Your task to perform on an android device: Install the Lyft app Image 0: 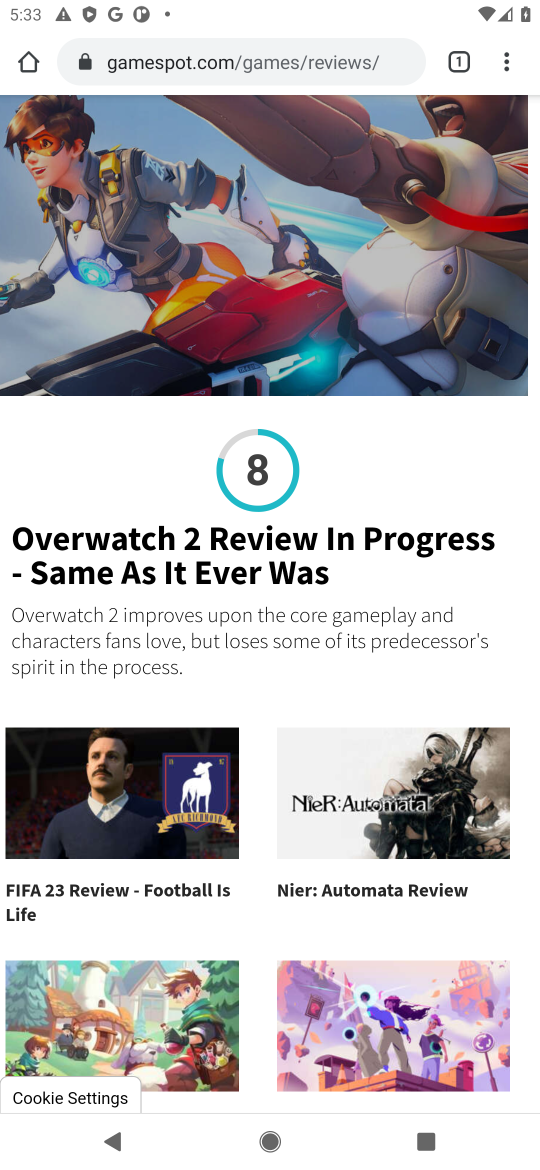
Step 0: press home button
Your task to perform on an android device: Install the Lyft app Image 1: 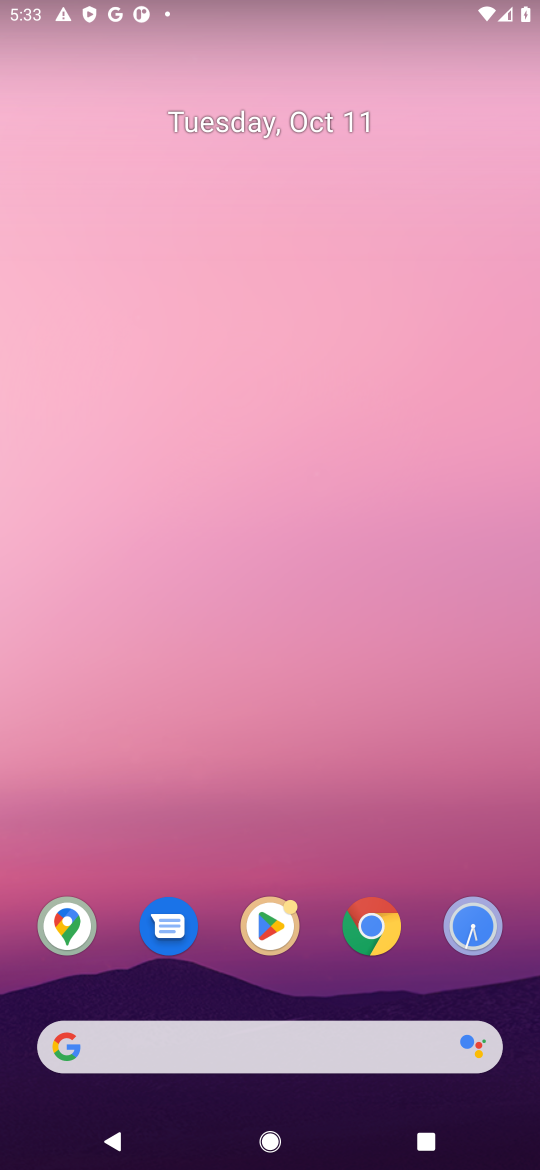
Step 1: click (266, 930)
Your task to perform on an android device: Install the Lyft app Image 2: 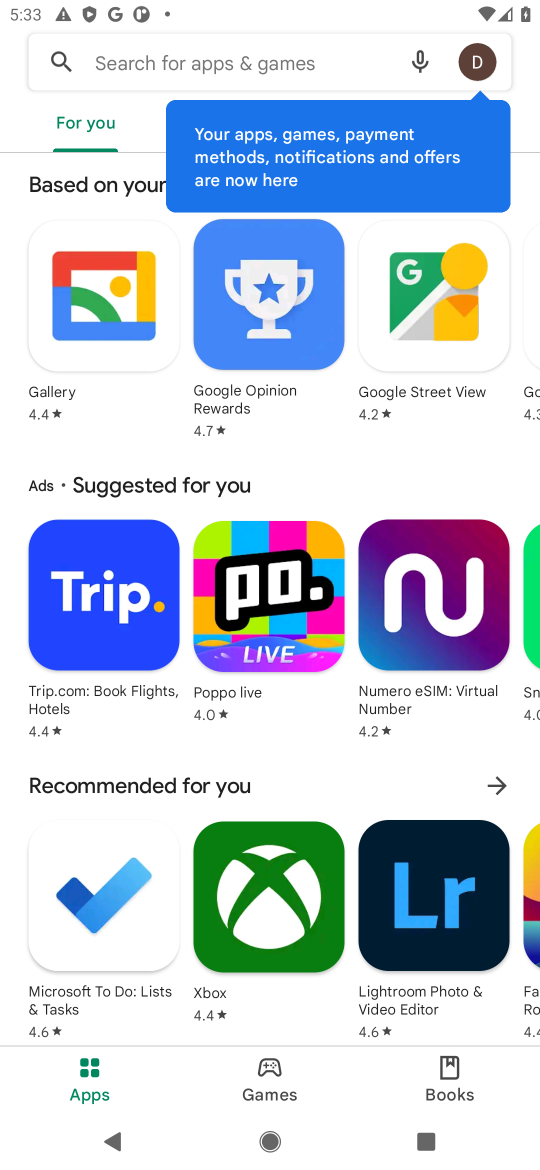
Step 2: click (159, 62)
Your task to perform on an android device: Install the Lyft app Image 3: 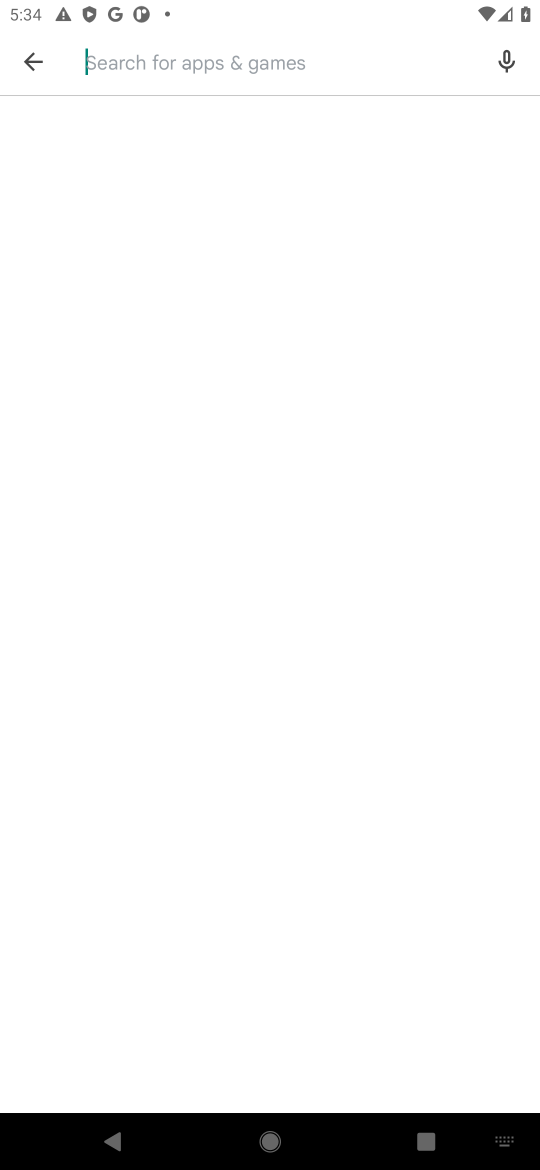
Step 3: type "lyft app"
Your task to perform on an android device: Install the Lyft app Image 4: 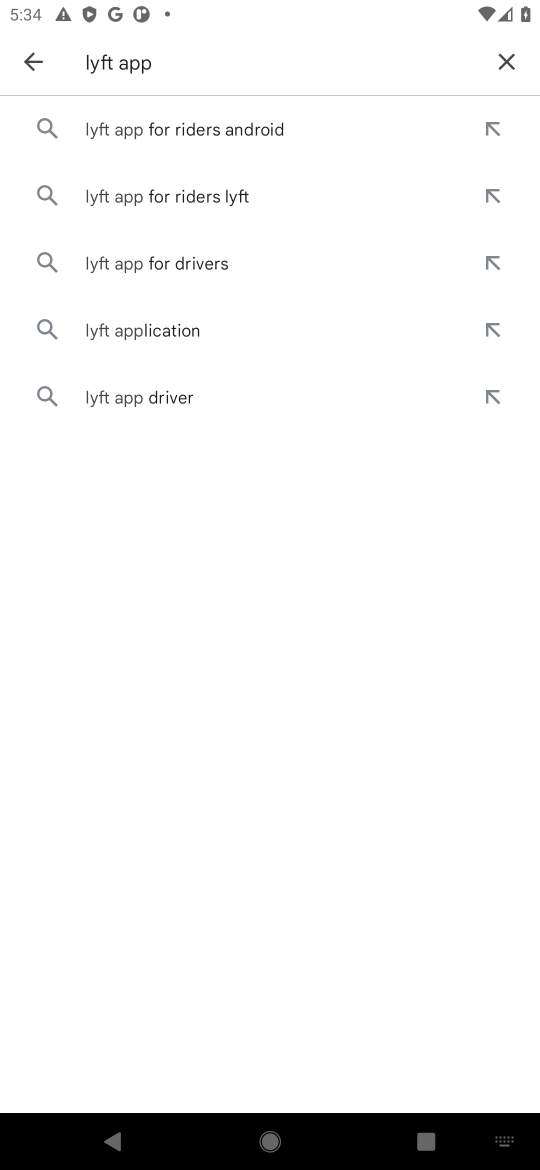
Step 4: click (124, 326)
Your task to perform on an android device: Install the Lyft app Image 5: 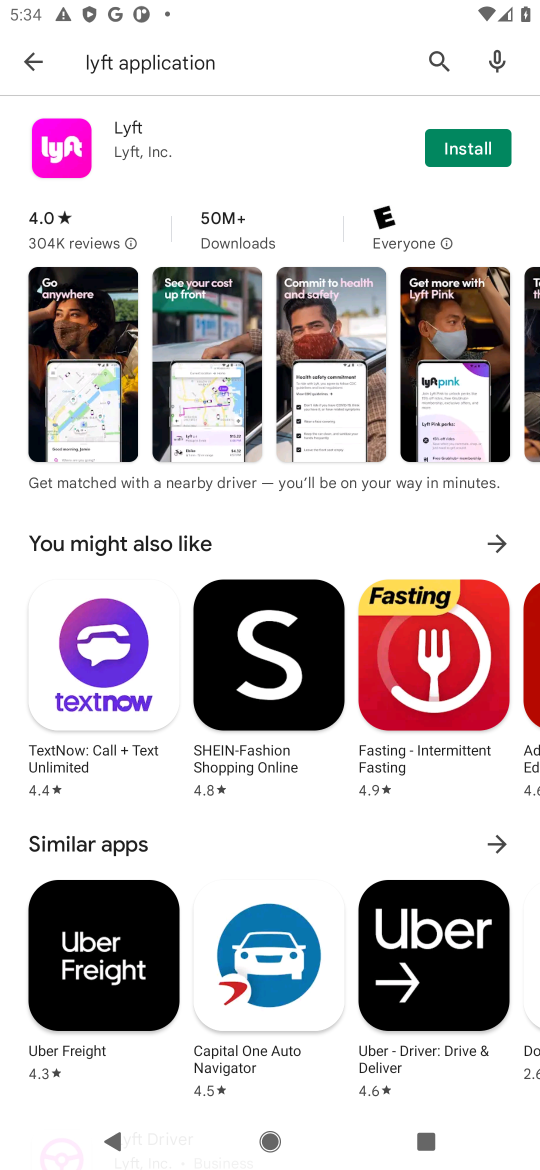
Step 5: click (471, 138)
Your task to perform on an android device: Install the Lyft app Image 6: 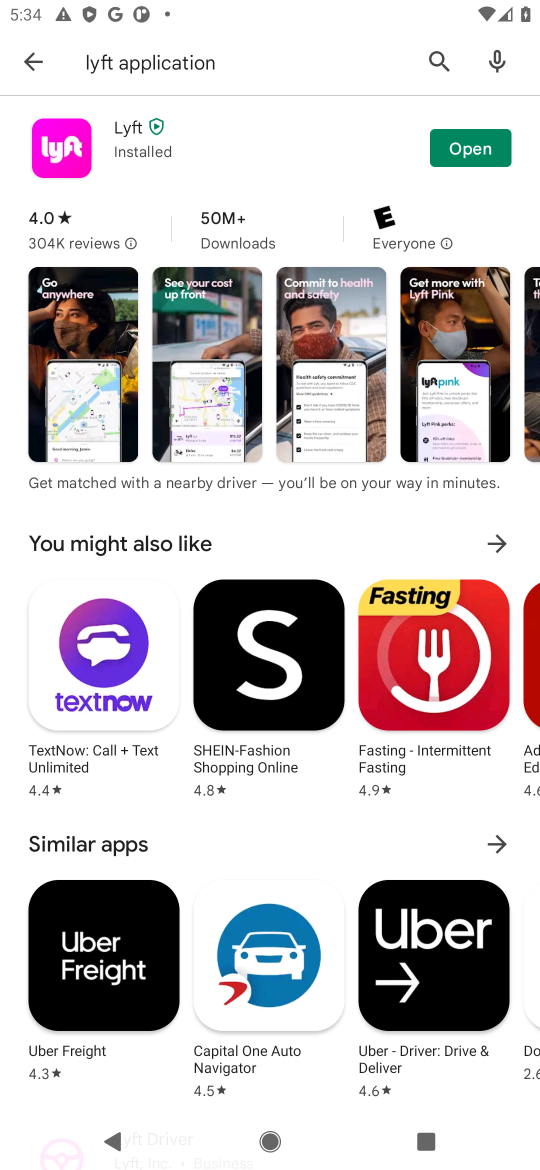
Step 6: task complete